Your task to perform on an android device: open app "Grab" (install if not already installed) Image 0: 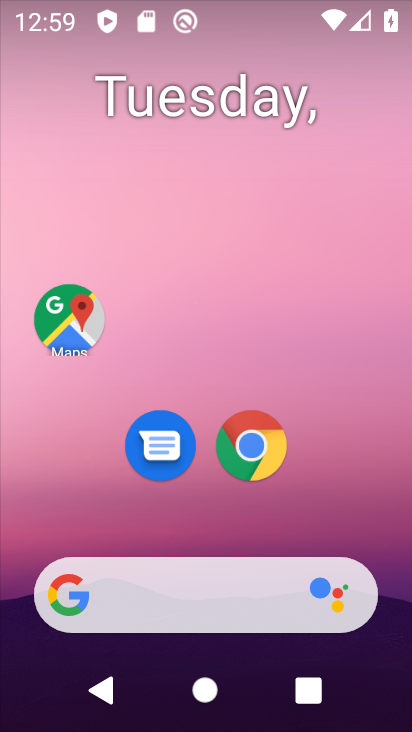
Step 0: drag from (169, 599) to (203, 42)
Your task to perform on an android device: open app "Grab" (install if not already installed) Image 1: 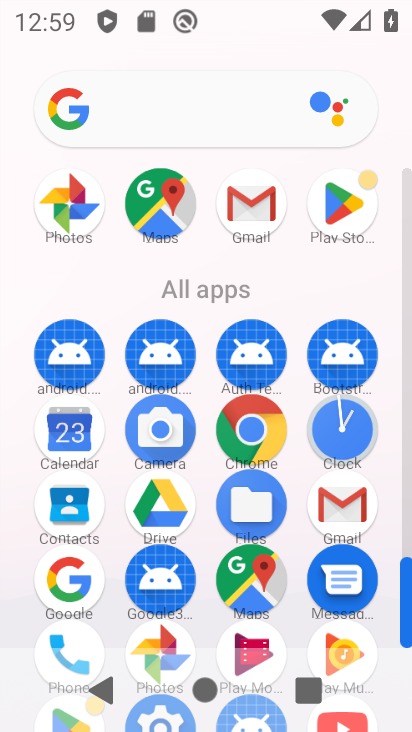
Step 1: click (343, 207)
Your task to perform on an android device: open app "Grab" (install if not already installed) Image 2: 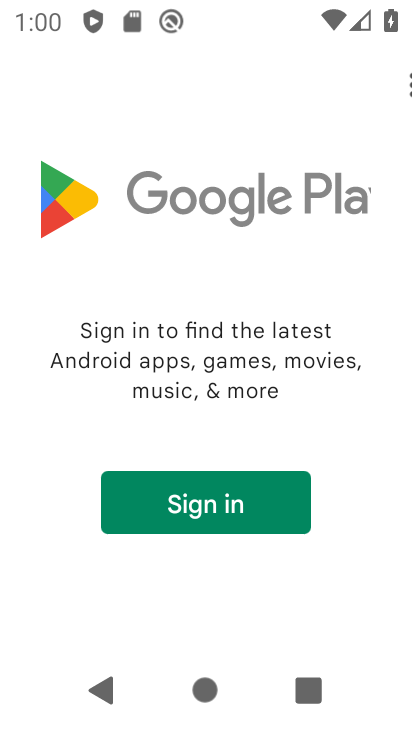
Step 2: click (226, 512)
Your task to perform on an android device: open app "Grab" (install if not already installed) Image 3: 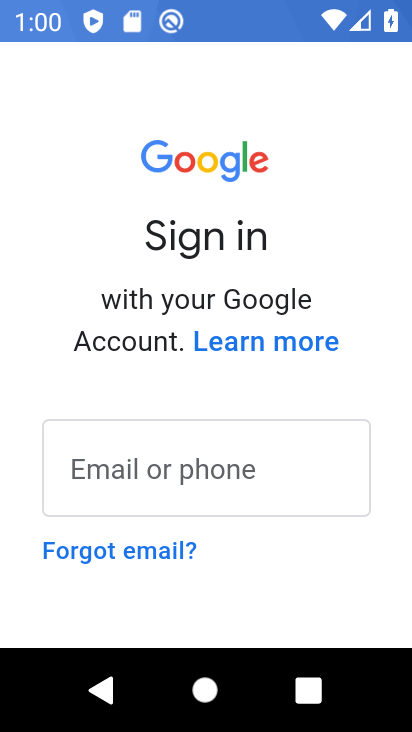
Step 3: click (209, 466)
Your task to perform on an android device: open app "Grab" (install if not already installed) Image 4: 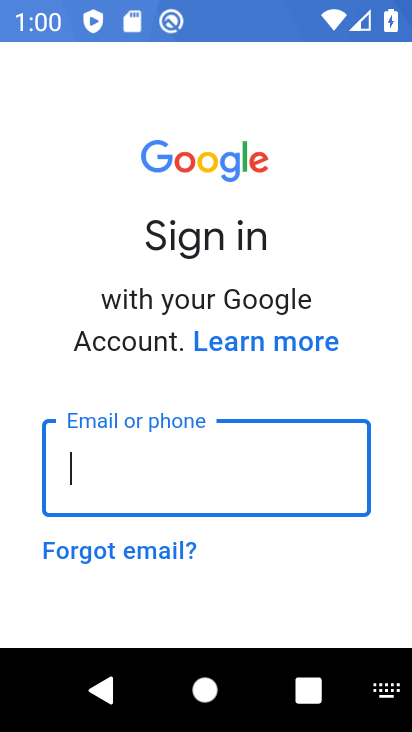
Step 4: click (152, 497)
Your task to perform on an android device: open app "Grab" (install if not already installed) Image 5: 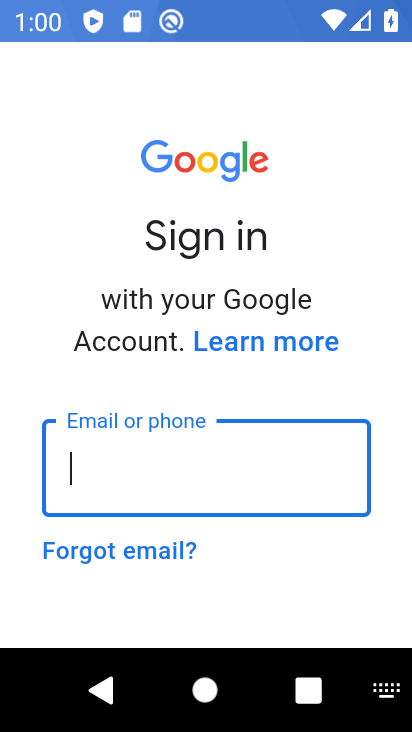
Step 5: task complete